Your task to perform on an android device: Go to Reddit.com Image 0: 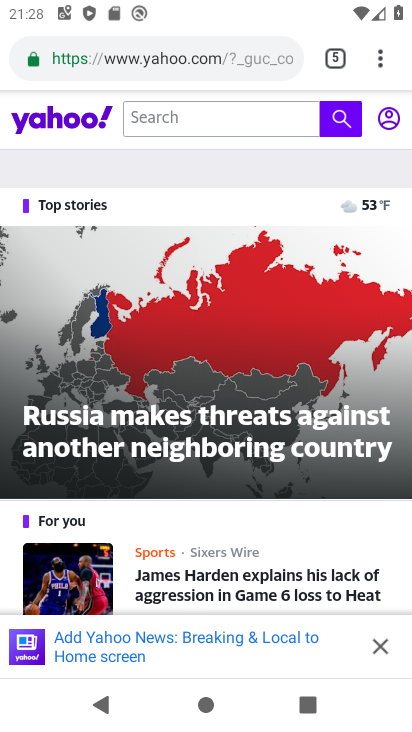
Step 0: press home button
Your task to perform on an android device: Go to Reddit.com Image 1: 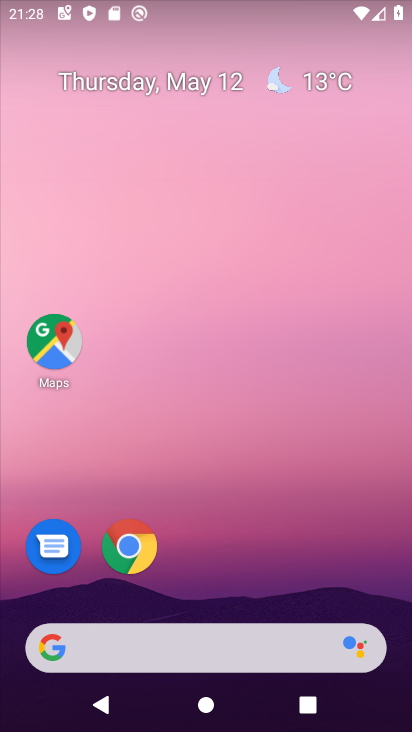
Step 1: click (121, 539)
Your task to perform on an android device: Go to Reddit.com Image 2: 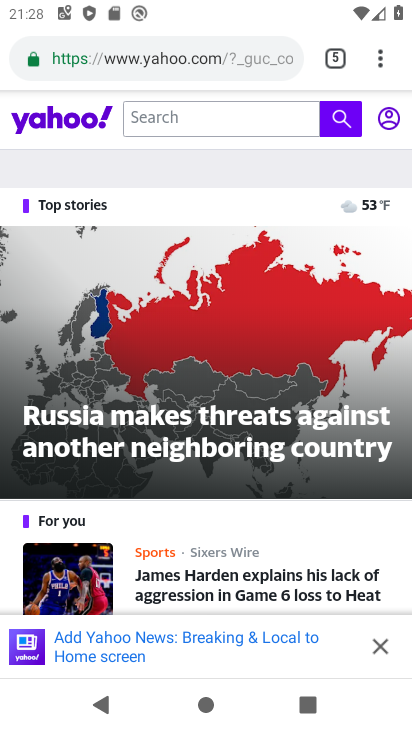
Step 2: click (227, 55)
Your task to perform on an android device: Go to Reddit.com Image 3: 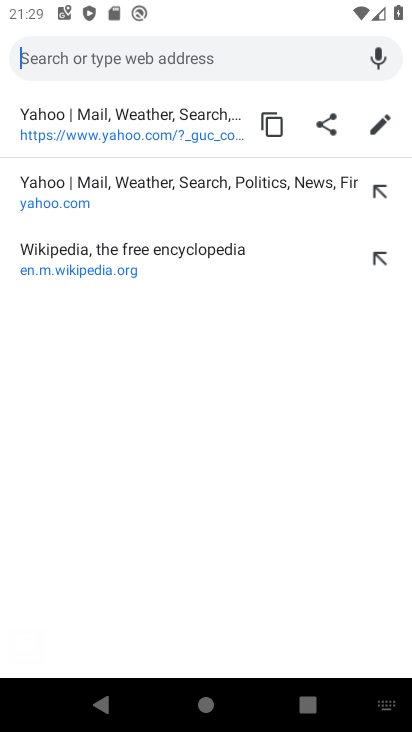
Step 3: type " Reddit.com"
Your task to perform on an android device: Go to Reddit.com Image 4: 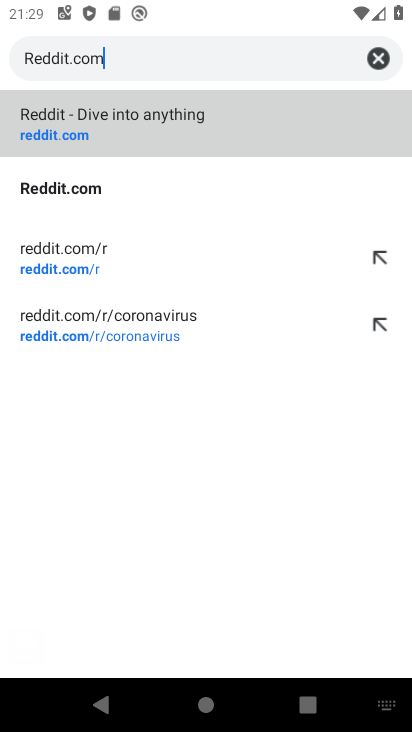
Step 4: click (45, 129)
Your task to perform on an android device: Go to Reddit.com Image 5: 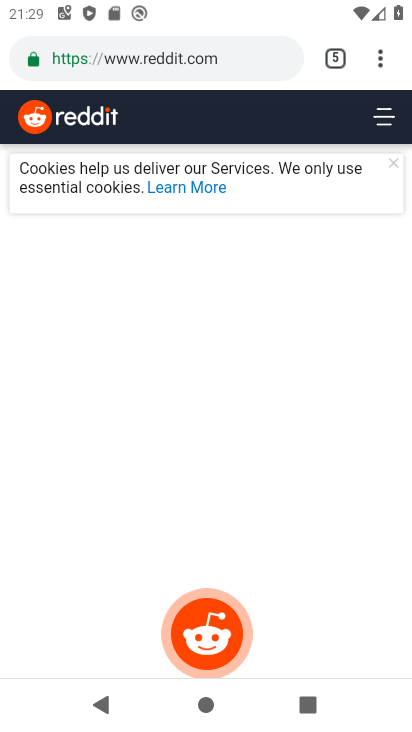
Step 5: task complete